Your task to perform on an android device: Go to eBay Image 0: 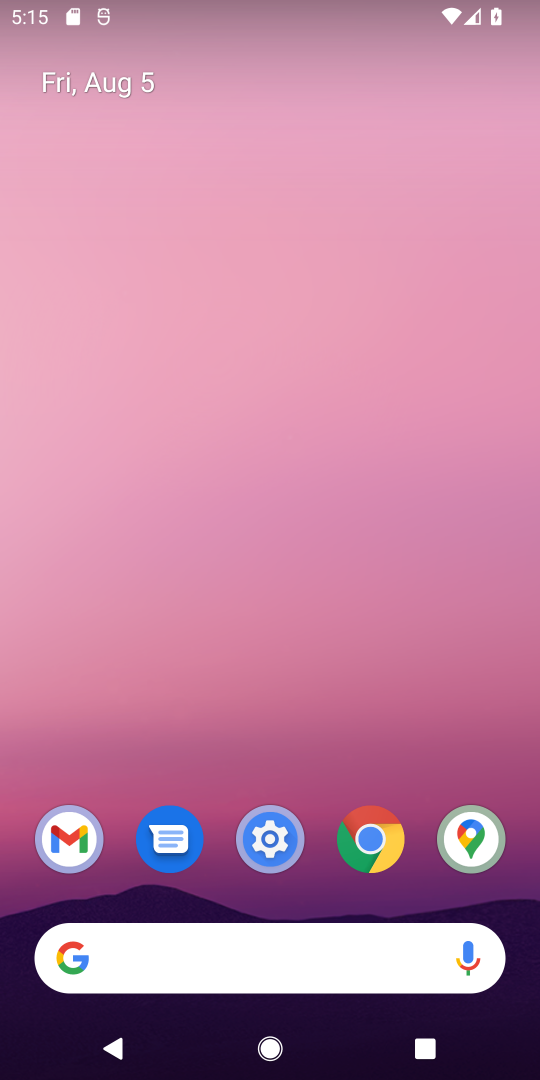
Step 0: click (371, 844)
Your task to perform on an android device: Go to eBay Image 1: 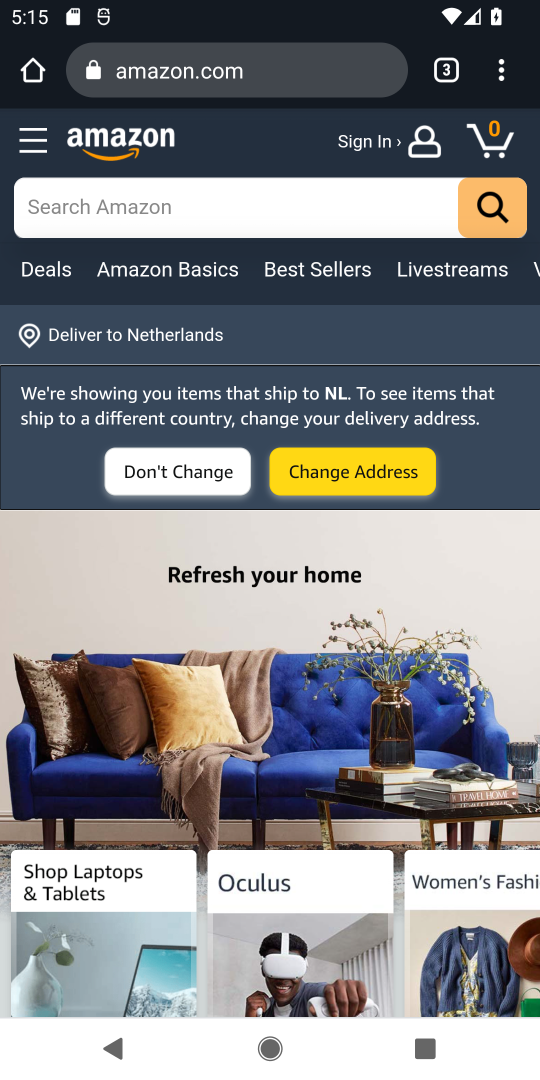
Step 1: click (444, 73)
Your task to perform on an android device: Go to eBay Image 2: 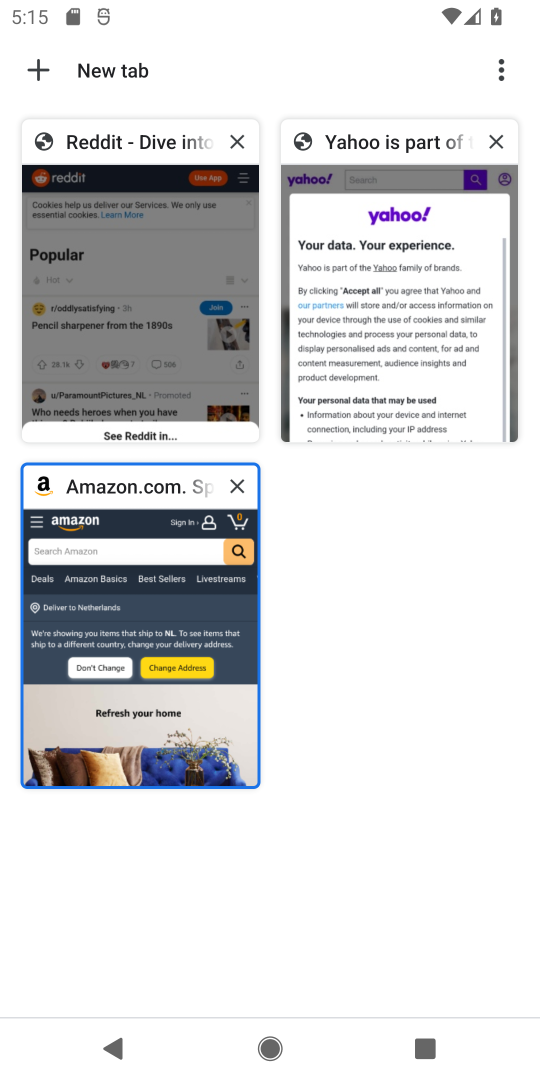
Step 2: click (27, 68)
Your task to perform on an android device: Go to eBay Image 3: 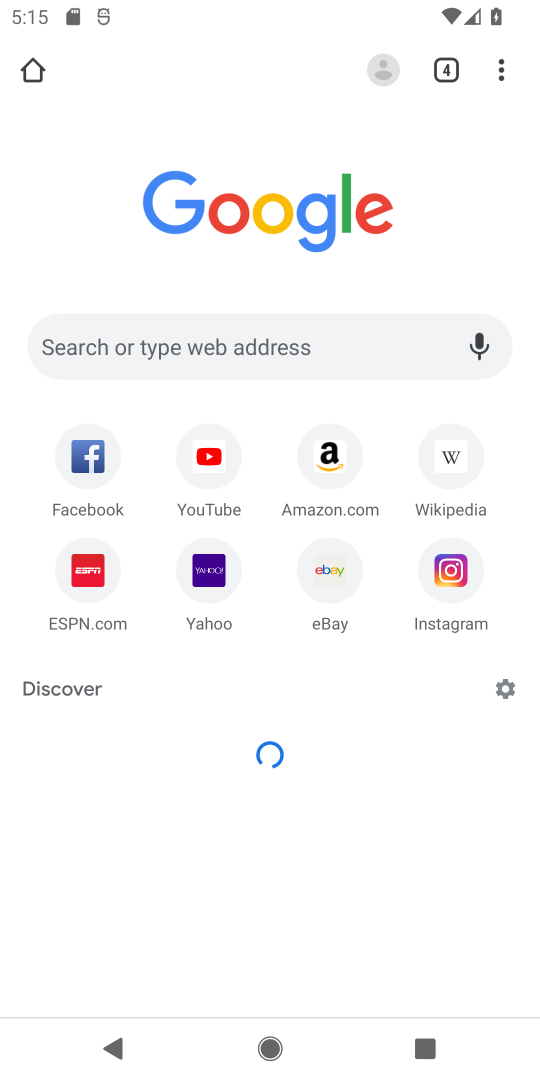
Step 3: click (212, 351)
Your task to perform on an android device: Go to eBay Image 4: 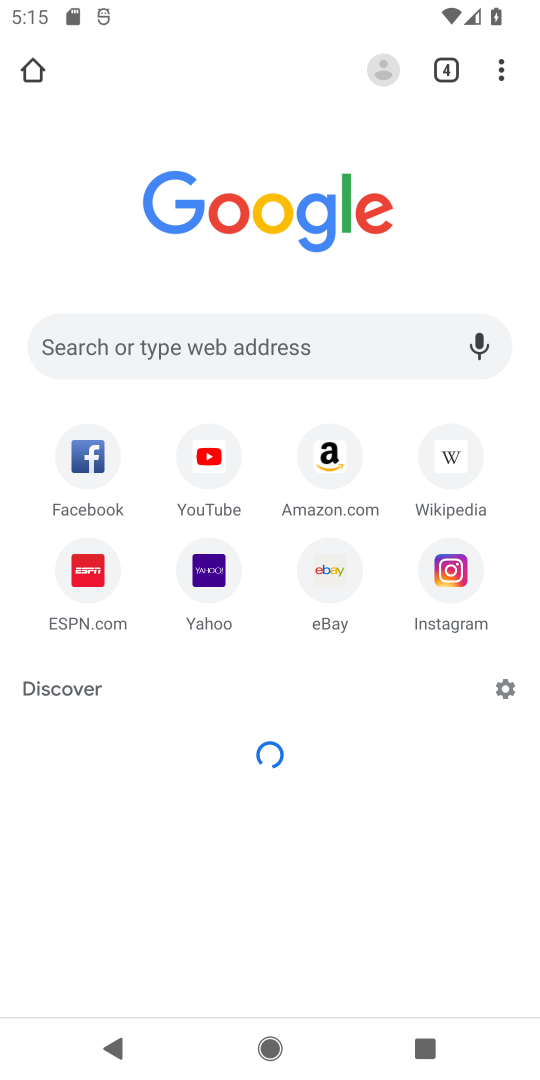
Step 4: click (354, 599)
Your task to perform on an android device: Go to eBay Image 5: 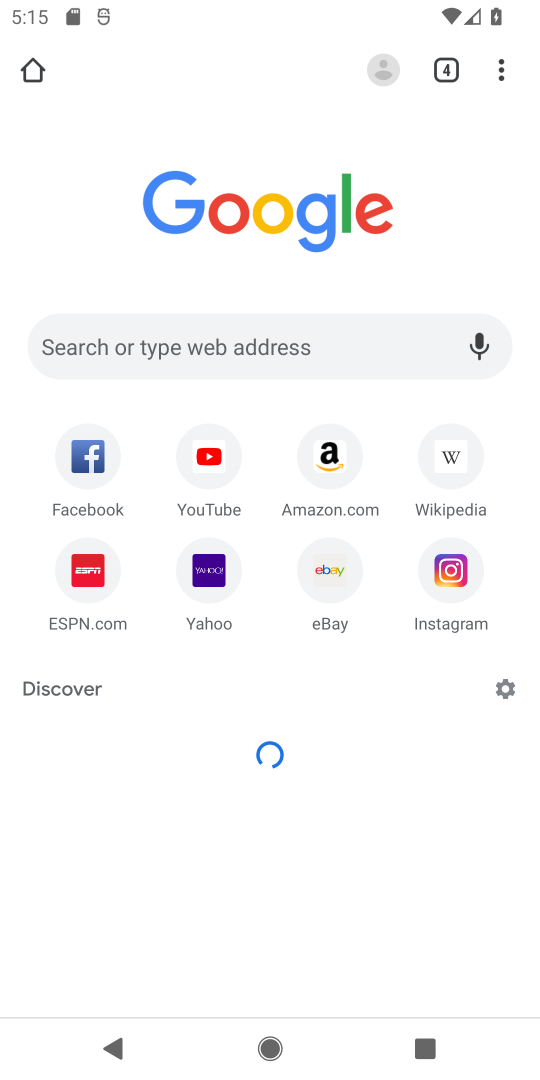
Step 5: click (326, 575)
Your task to perform on an android device: Go to eBay Image 6: 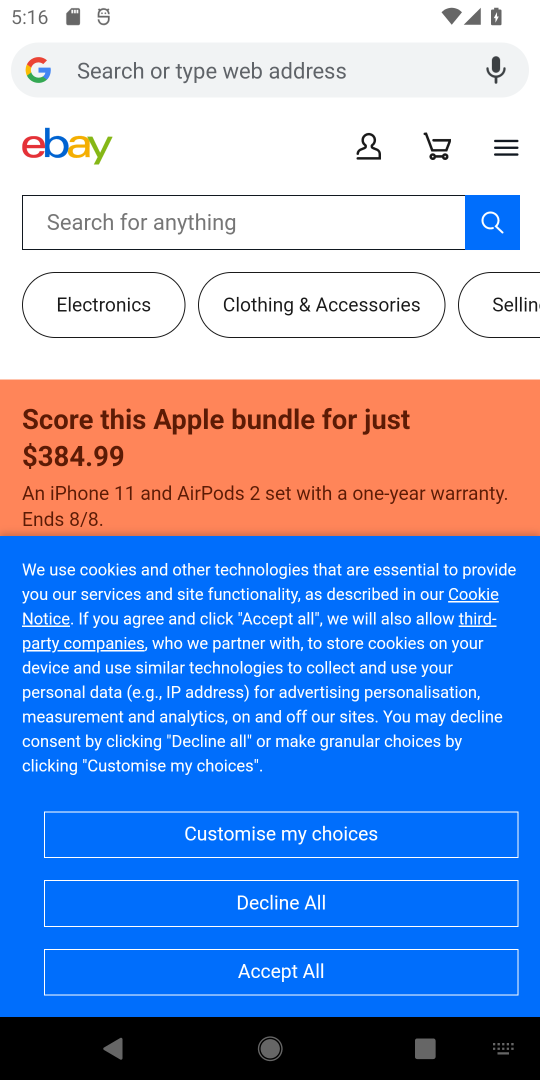
Step 6: task complete